Your task to perform on an android device: refresh tabs in the chrome app Image 0: 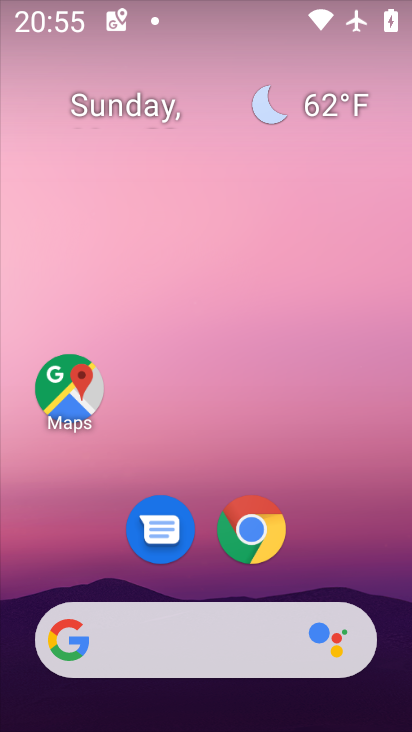
Step 0: click (131, 21)
Your task to perform on an android device: refresh tabs in the chrome app Image 1: 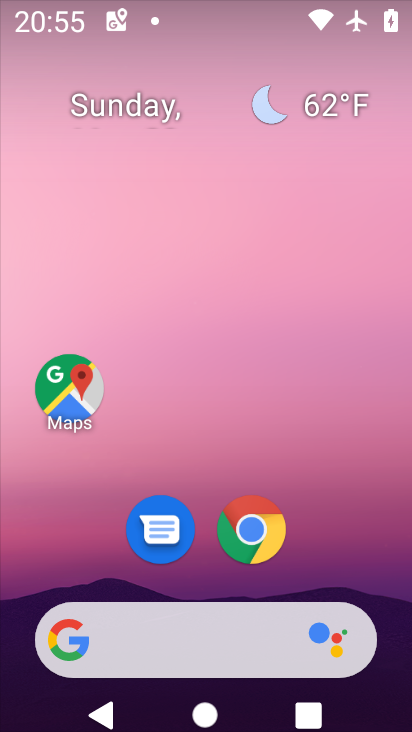
Step 1: click (111, 7)
Your task to perform on an android device: refresh tabs in the chrome app Image 2: 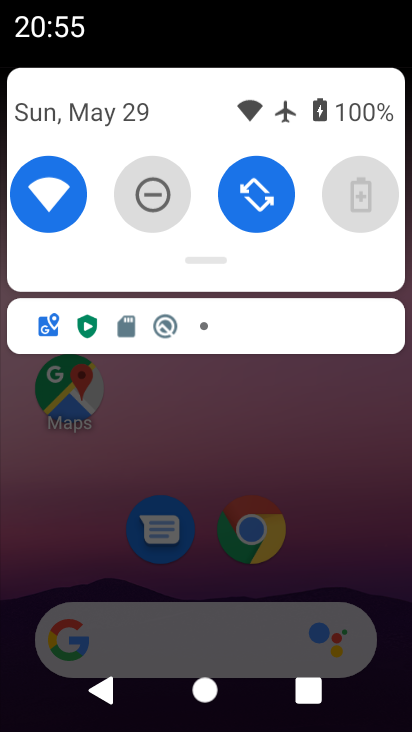
Step 2: drag from (217, 440) to (185, 102)
Your task to perform on an android device: refresh tabs in the chrome app Image 3: 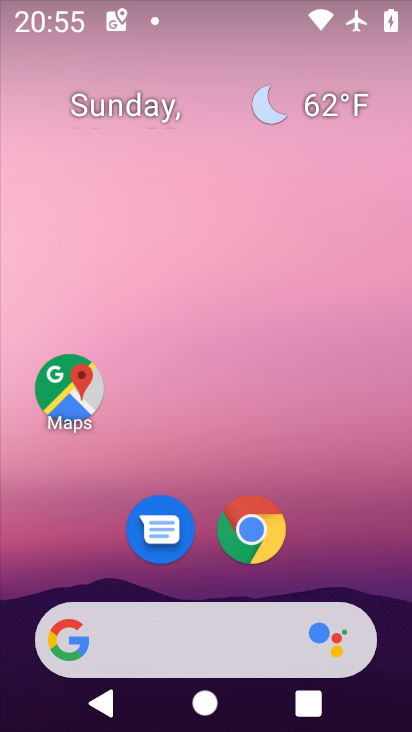
Step 3: drag from (194, 324) to (144, 0)
Your task to perform on an android device: refresh tabs in the chrome app Image 4: 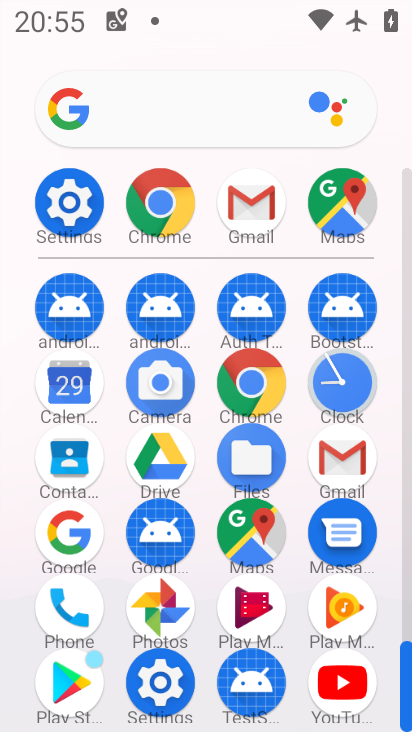
Step 4: drag from (276, 566) to (157, 162)
Your task to perform on an android device: refresh tabs in the chrome app Image 5: 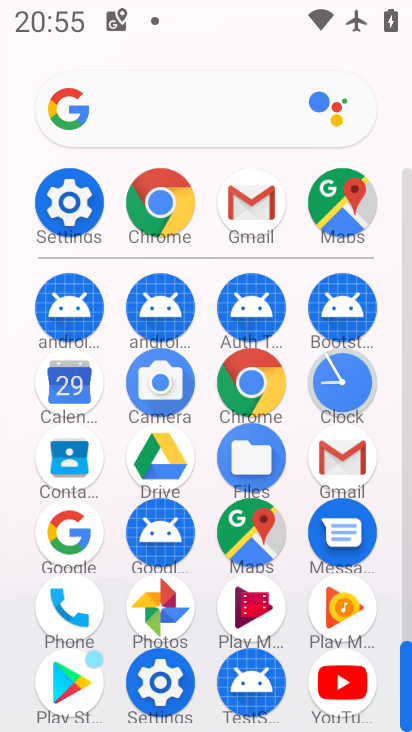
Step 5: click (162, 203)
Your task to perform on an android device: refresh tabs in the chrome app Image 6: 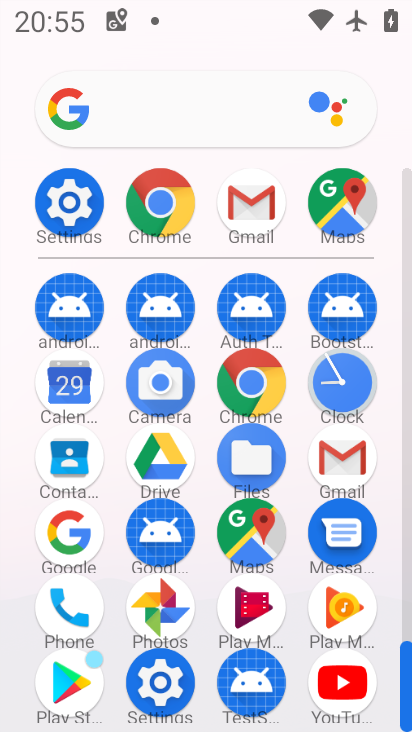
Step 6: click (162, 203)
Your task to perform on an android device: refresh tabs in the chrome app Image 7: 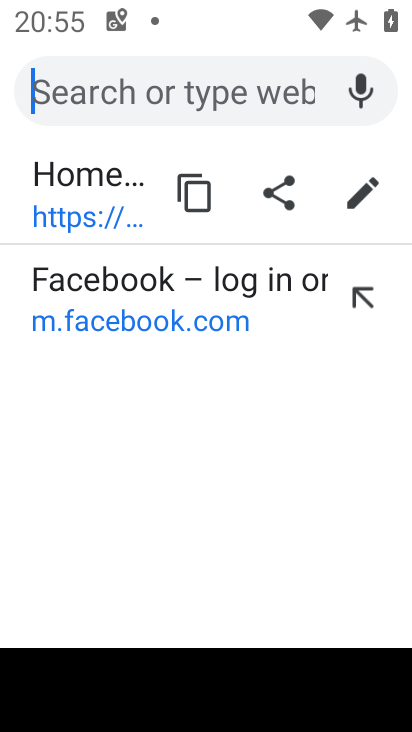
Step 7: press back button
Your task to perform on an android device: refresh tabs in the chrome app Image 8: 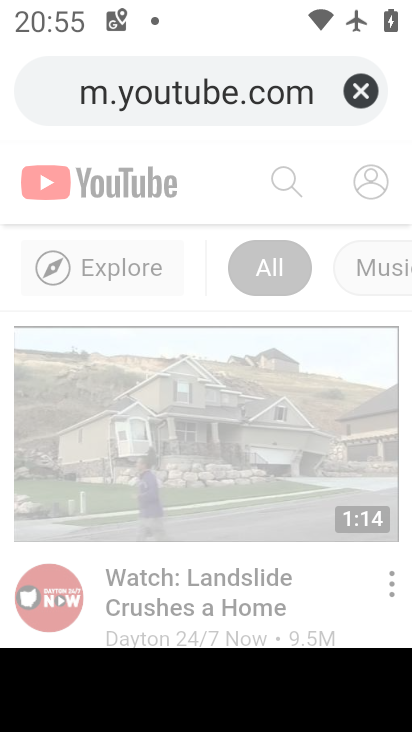
Step 8: press back button
Your task to perform on an android device: refresh tabs in the chrome app Image 9: 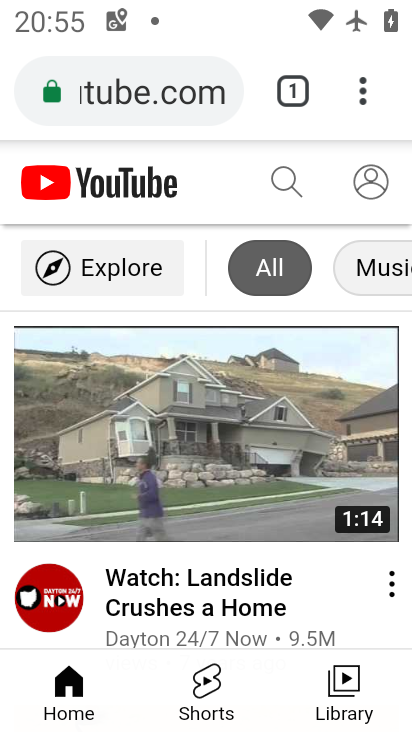
Step 9: press back button
Your task to perform on an android device: refresh tabs in the chrome app Image 10: 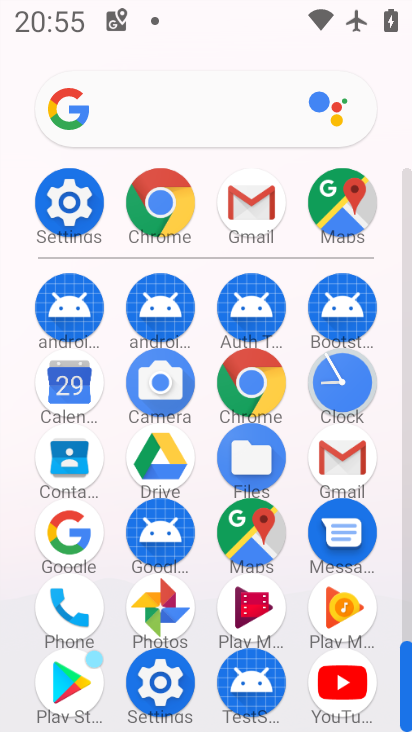
Step 10: click (155, 208)
Your task to perform on an android device: refresh tabs in the chrome app Image 11: 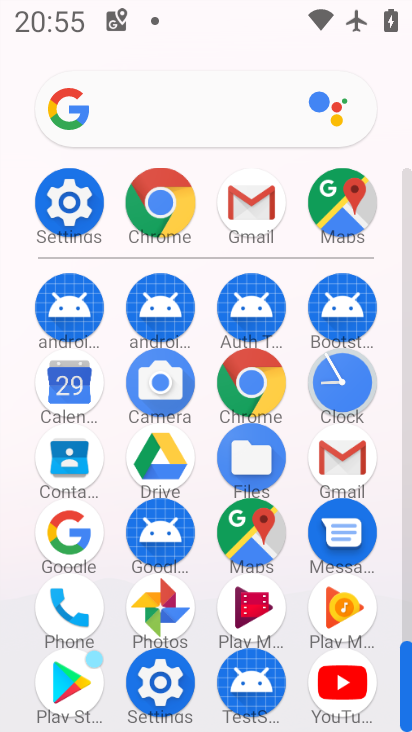
Step 11: click (155, 208)
Your task to perform on an android device: refresh tabs in the chrome app Image 12: 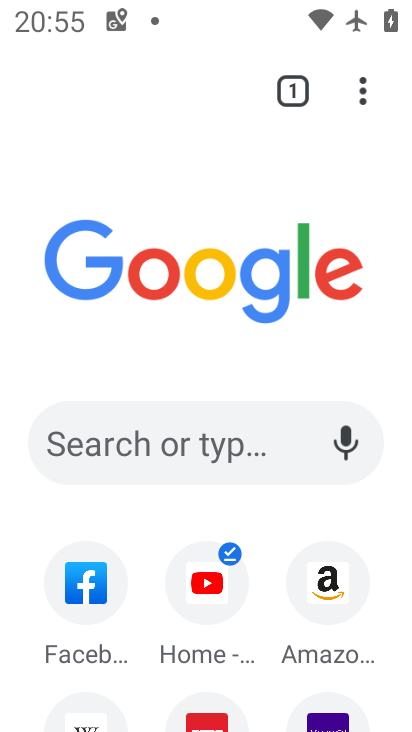
Step 12: drag from (358, 98) to (404, 88)
Your task to perform on an android device: refresh tabs in the chrome app Image 13: 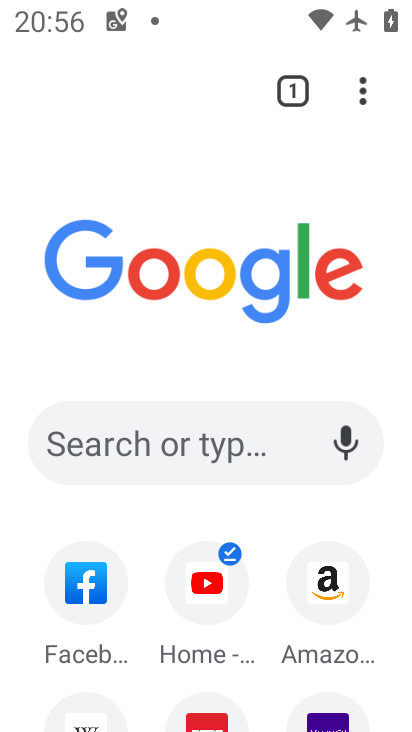
Step 13: click (404, 91)
Your task to perform on an android device: refresh tabs in the chrome app Image 14: 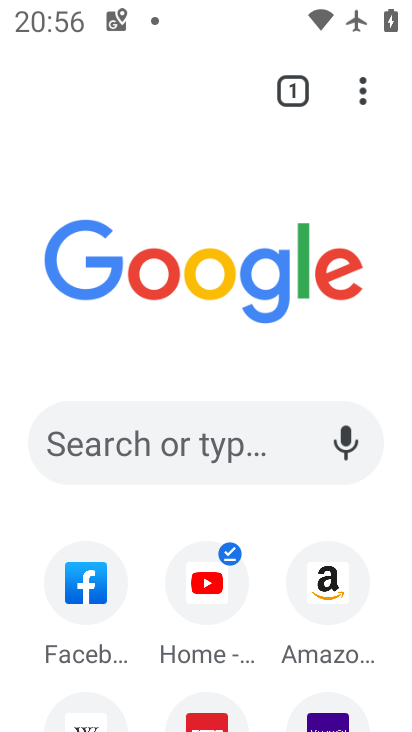
Step 14: task complete